Your task to perform on an android device: Open Yahoo.com Image 0: 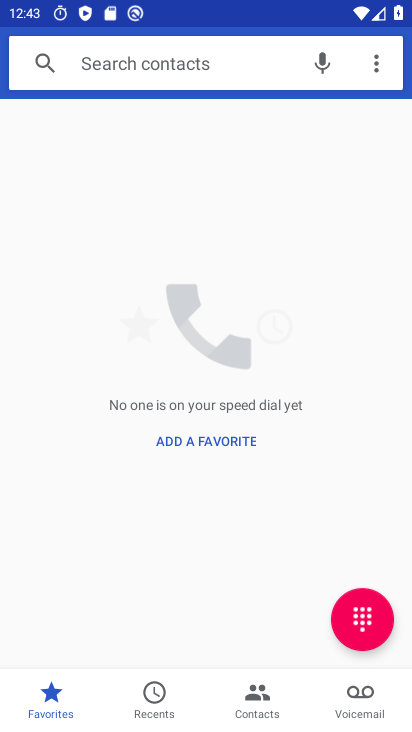
Step 0: press home button
Your task to perform on an android device: Open Yahoo.com Image 1: 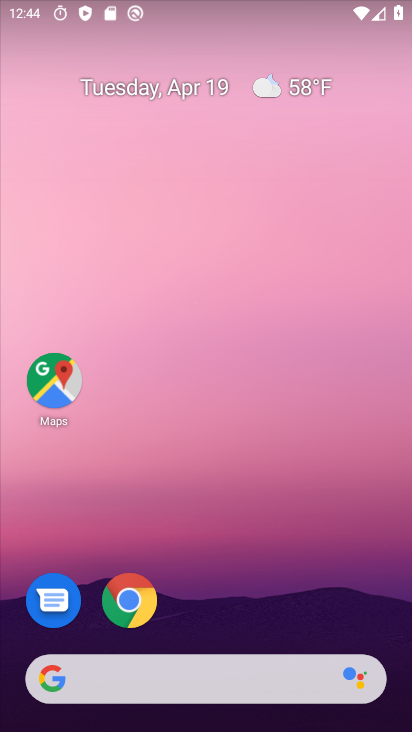
Step 1: drag from (217, 710) to (130, 312)
Your task to perform on an android device: Open Yahoo.com Image 2: 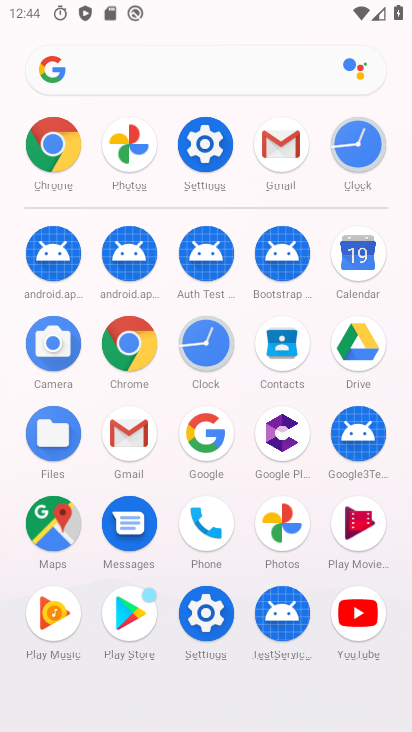
Step 2: click (55, 173)
Your task to perform on an android device: Open Yahoo.com Image 3: 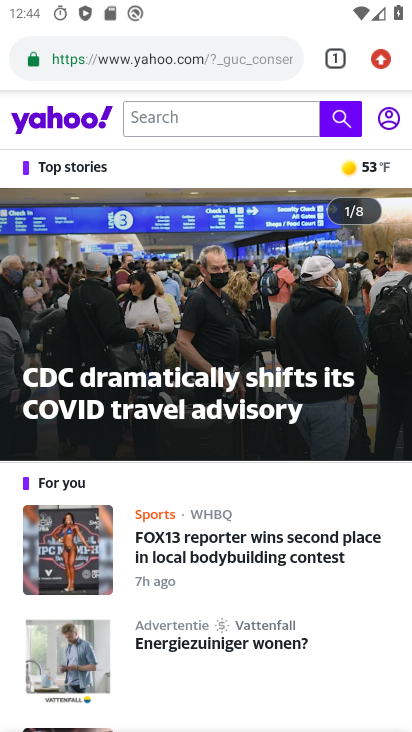
Step 3: task complete